Your task to perform on an android device: turn on notifications settings in the gmail app Image 0: 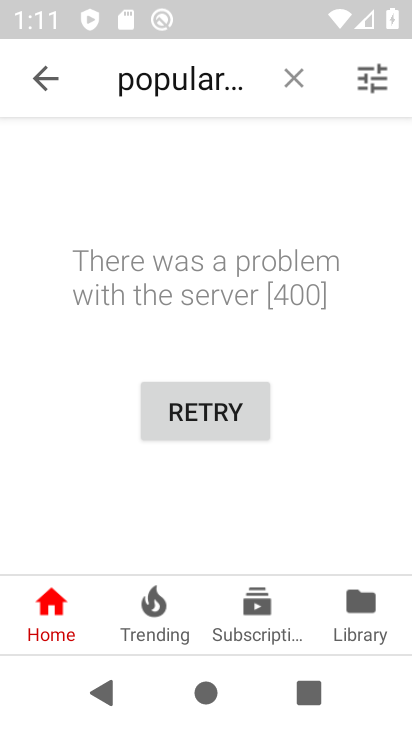
Step 0: press home button
Your task to perform on an android device: turn on notifications settings in the gmail app Image 1: 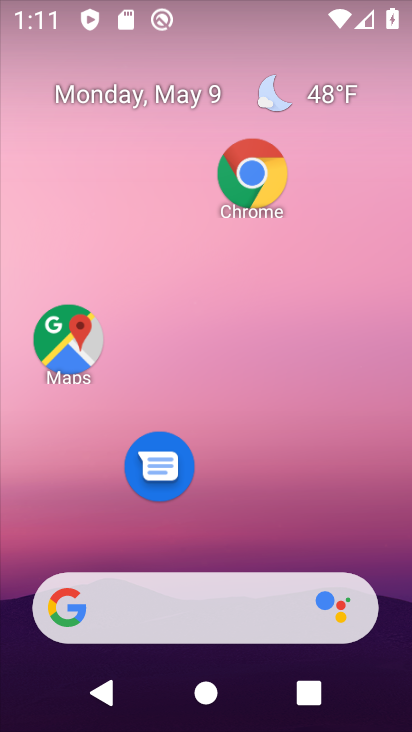
Step 1: drag from (234, 531) to (269, 188)
Your task to perform on an android device: turn on notifications settings in the gmail app Image 2: 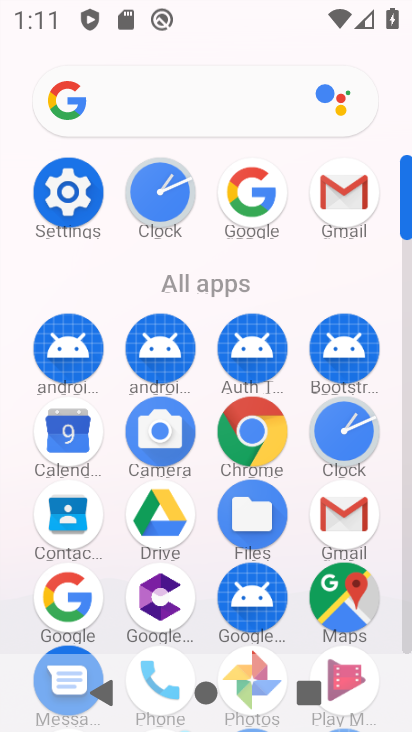
Step 2: click (330, 206)
Your task to perform on an android device: turn on notifications settings in the gmail app Image 3: 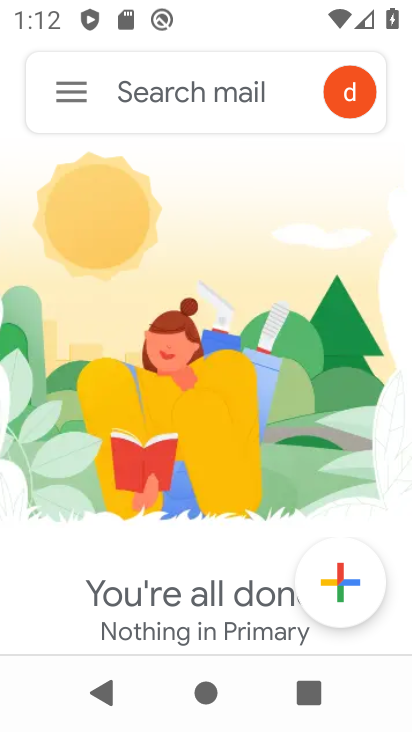
Step 3: click (65, 88)
Your task to perform on an android device: turn on notifications settings in the gmail app Image 4: 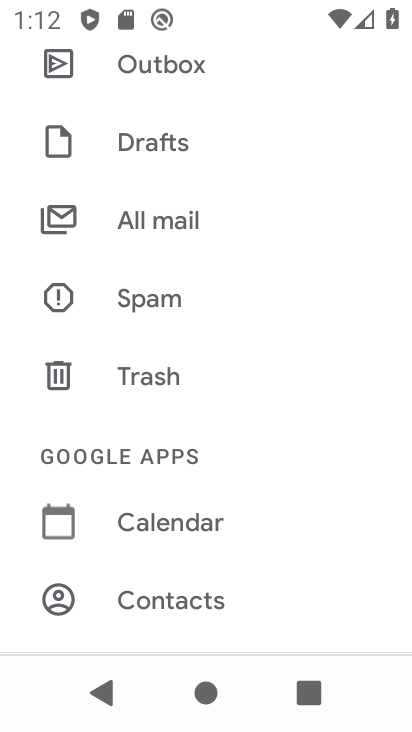
Step 4: drag from (174, 586) to (208, 352)
Your task to perform on an android device: turn on notifications settings in the gmail app Image 5: 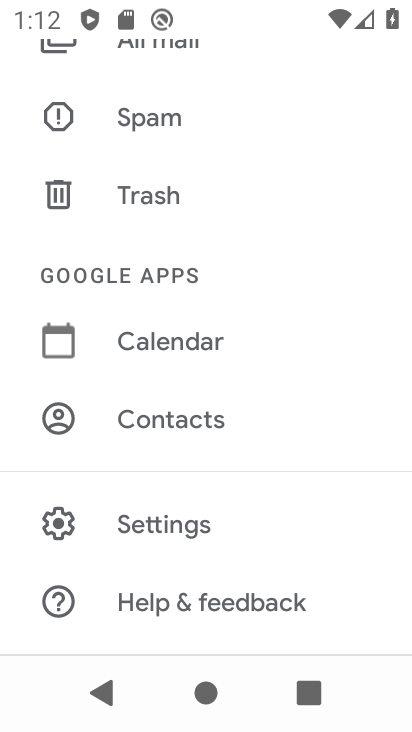
Step 5: click (179, 514)
Your task to perform on an android device: turn on notifications settings in the gmail app Image 6: 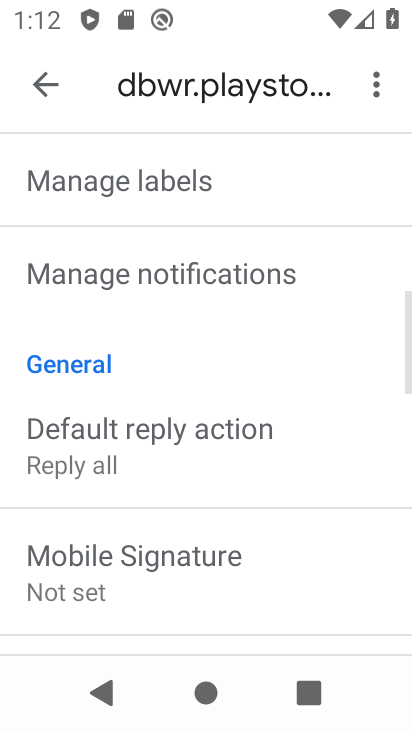
Step 6: drag from (222, 549) to (262, 368)
Your task to perform on an android device: turn on notifications settings in the gmail app Image 7: 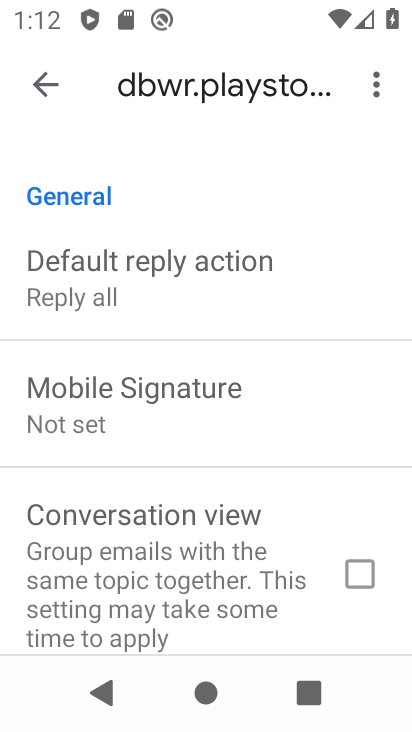
Step 7: drag from (263, 518) to (332, 264)
Your task to perform on an android device: turn on notifications settings in the gmail app Image 8: 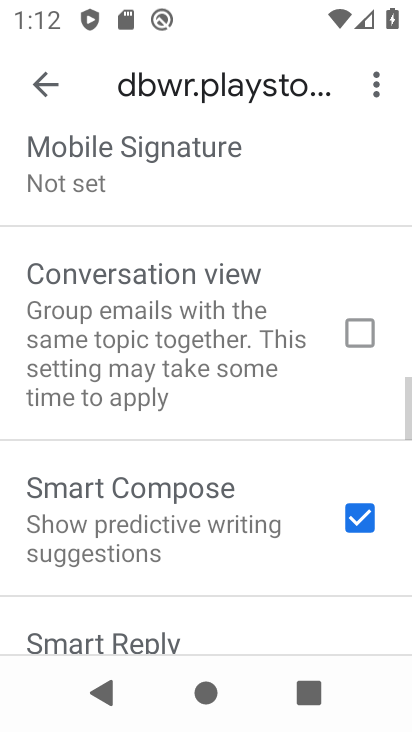
Step 8: drag from (245, 570) to (242, 321)
Your task to perform on an android device: turn on notifications settings in the gmail app Image 9: 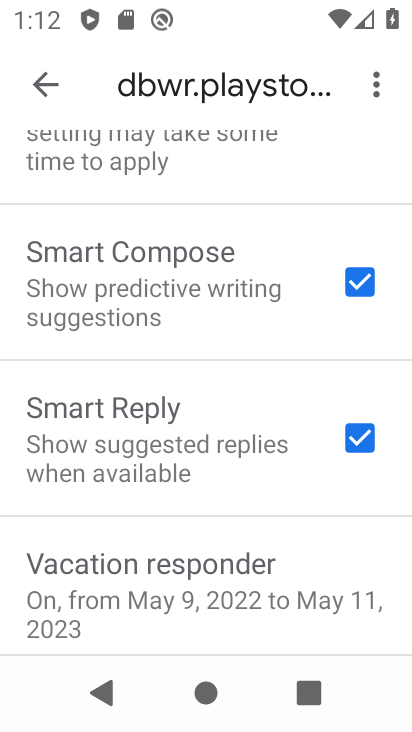
Step 9: drag from (198, 639) to (211, 396)
Your task to perform on an android device: turn on notifications settings in the gmail app Image 10: 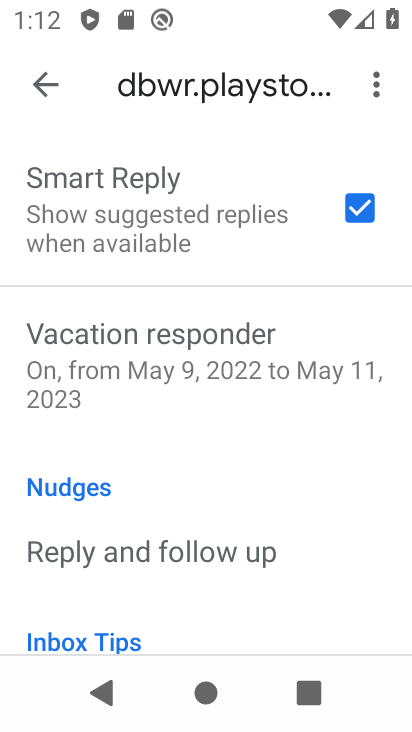
Step 10: drag from (208, 483) to (225, 258)
Your task to perform on an android device: turn on notifications settings in the gmail app Image 11: 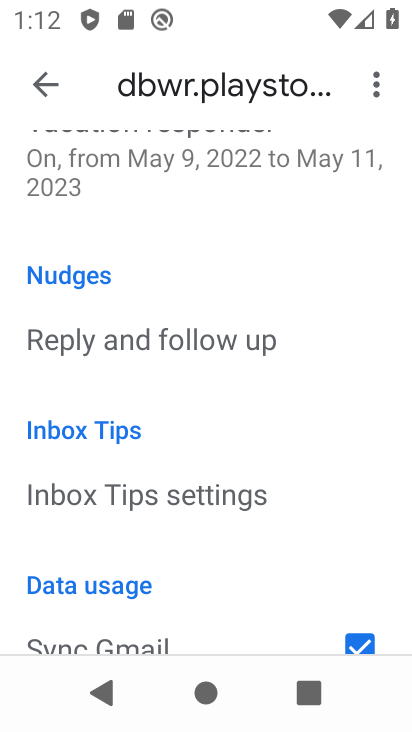
Step 11: drag from (223, 502) to (251, 238)
Your task to perform on an android device: turn on notifications settings in the gmail app Image 12: 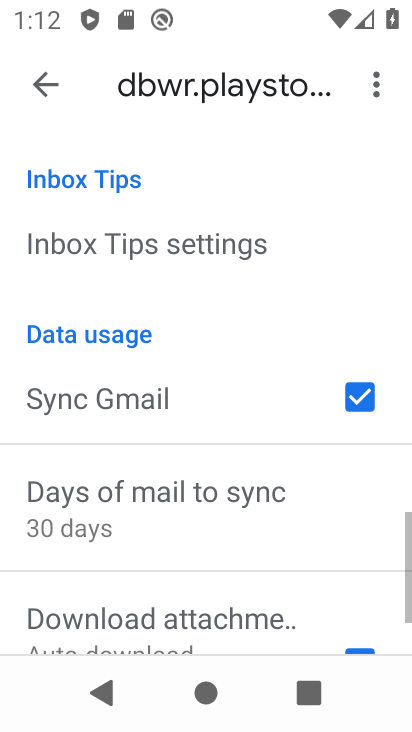
Step 12: drag from (253, 493) to (283, 222)
Your task to perform on an android device: turn on notifications settings in the gmail app Image 13: 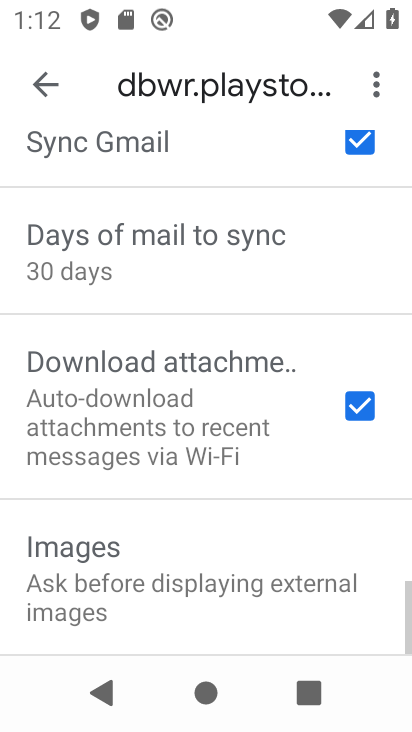
Step 13: drag from (221, 537) to (266, 226)
Your task to perform on an android device: turn on notifications settings in the gmail app Image 14: 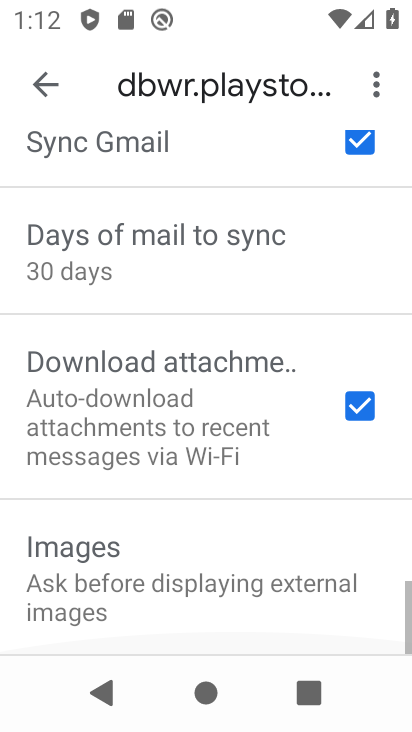
Step 14: drag from (268, 239) to (270, 546)
Your task to perform on an android device: turn on notifications settings in the gmail app Image 15: 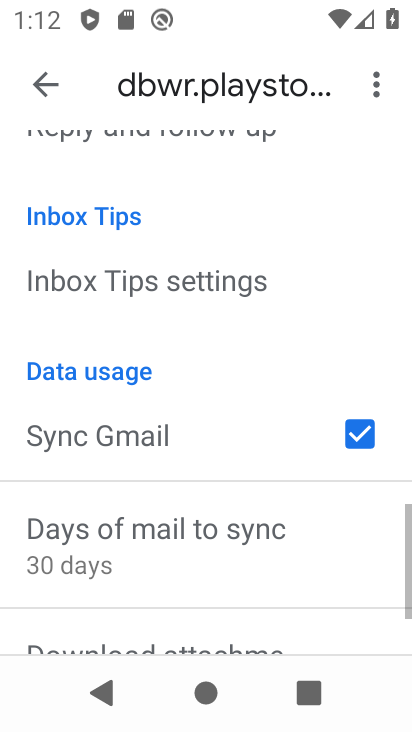
Step 15: drag from (233, 304) to (233, 554)
Your task to perform on an android device: turn on notifications settings in the gmail app Image 16: 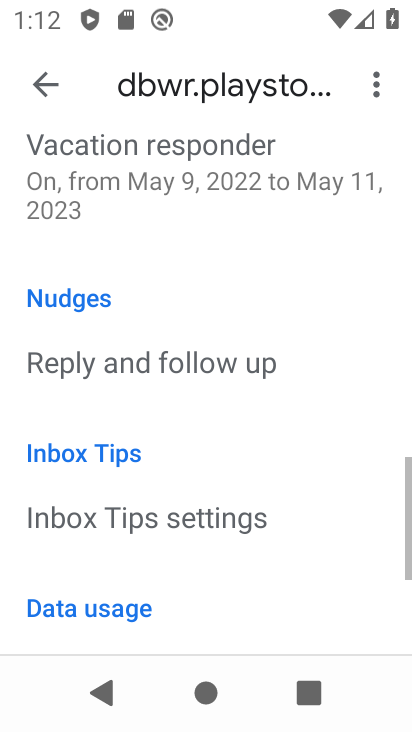
Step 16: drag from (190, 350) to (190, 558)
Your task to perform on an android device: turn on notifications settings in the gmail app Image 17: 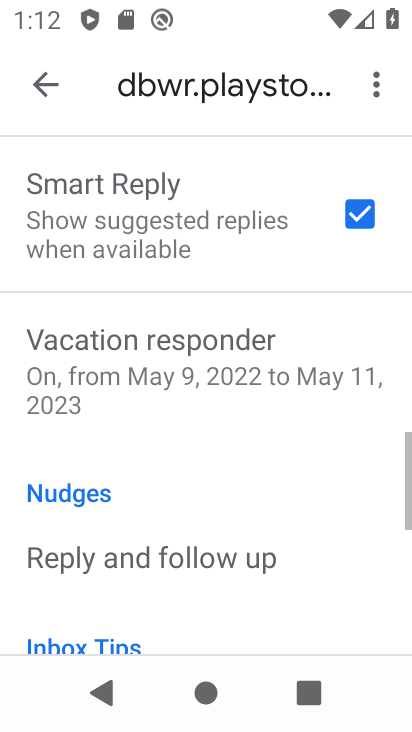
Step 17: drag from (189, 281) to (211, 465)
Your task to perform on an android device: turn on notifications settings in the gmail app Image 18: 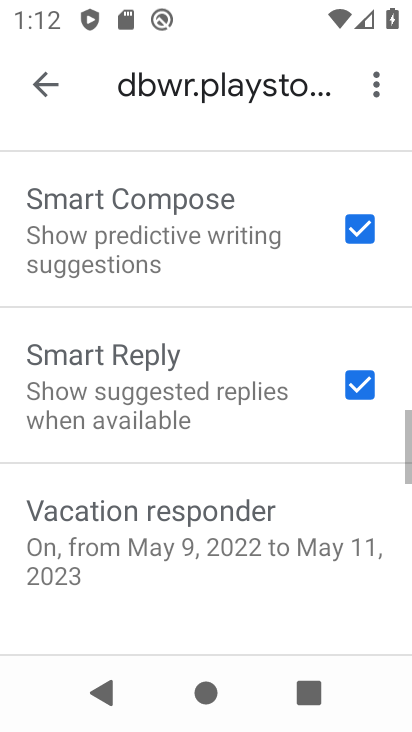
Step 18: drag from (211, 281) to (238, 484)
Your task to perform on an android device: turn on notifications settings in the gmail app Image 19: 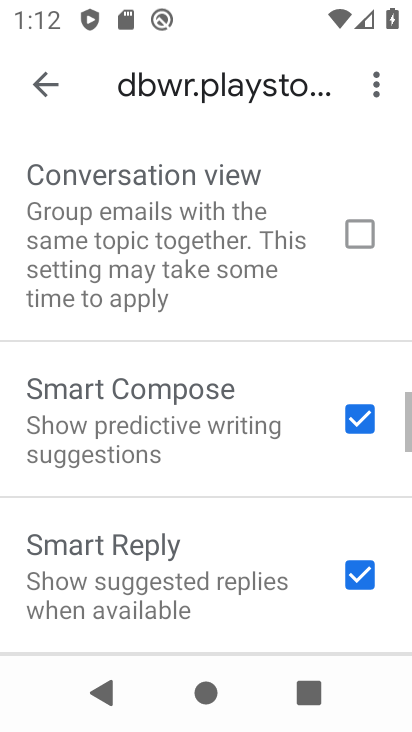
Step 19: drag from (199, 273) to (199, 463)
Your task to perform on an android device: turn on notifications settings in the gmail app Image 20: 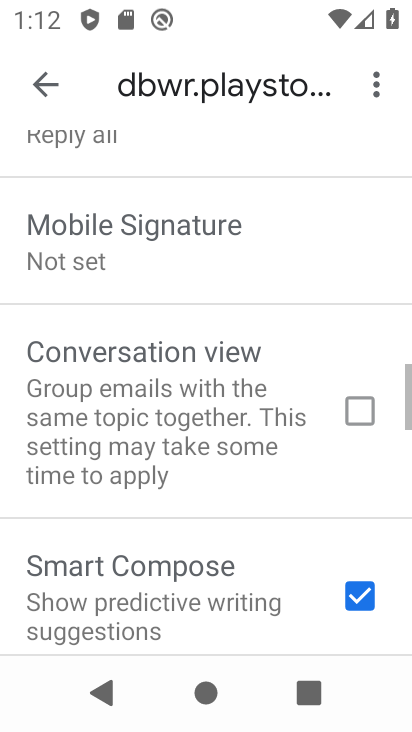
Step 20: drag from (175, 253) to (191, 473)
Your task to perform on an android device: turn on notifications settings in the gmail app Image 21: 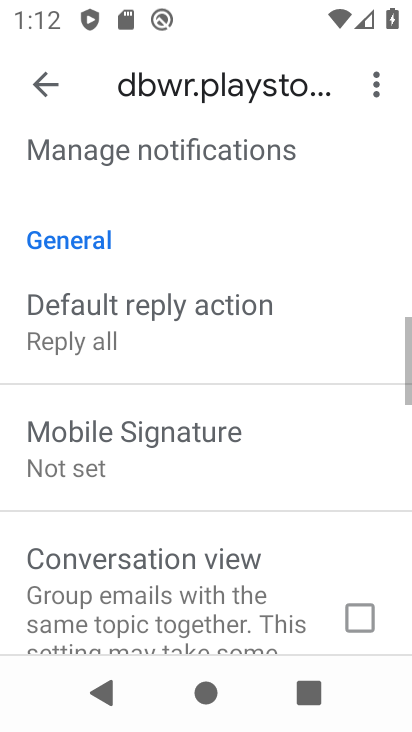
Step 21: drag from (184, 346) to (184, 470)
Your task to perform on an android device: turn on notifications settings in the gmail app Image 22: 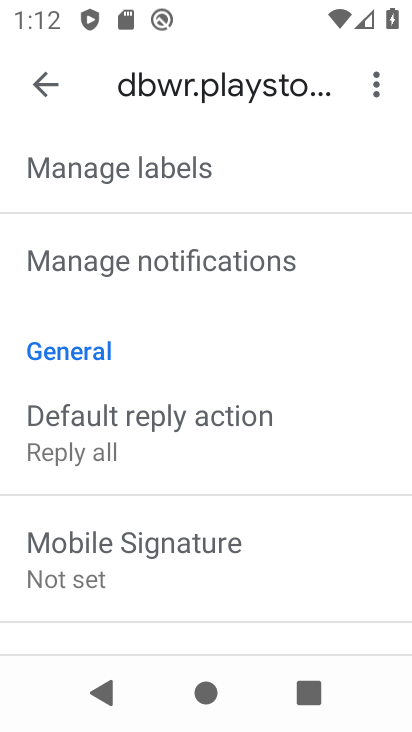
Step 22: drag from (165, 279) to (152, 500)
Your task to perform on an android device: turn on notifications settings in the gmail app Image 23: 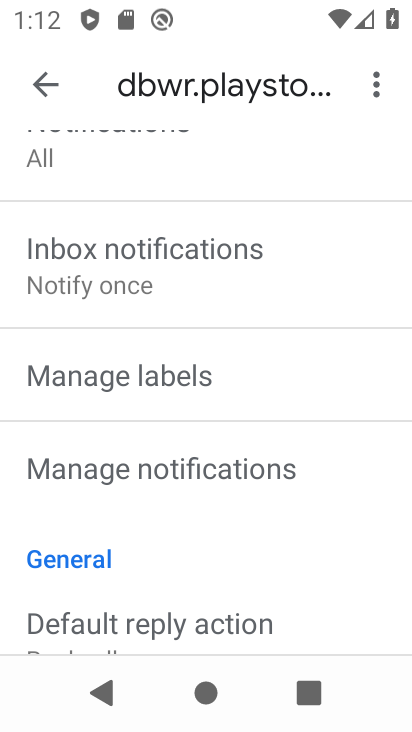
Step 23: click (152, 500)
Your task to perform on an android device: turn on notifications settings in the gmail app Image 24: 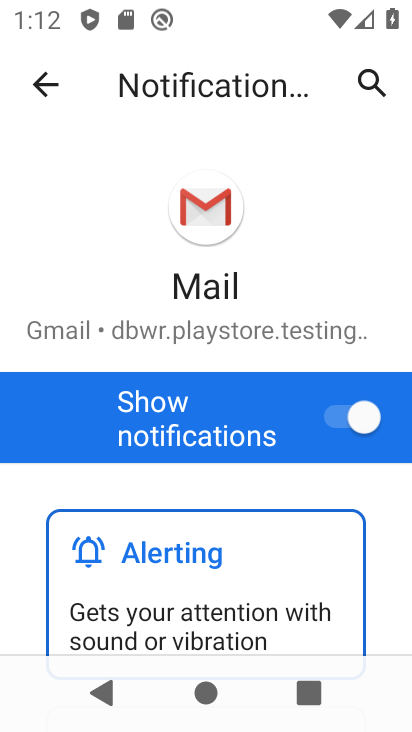
Step 24: task complete